Your task to perform on an android device: Go to internet settings Image 0: 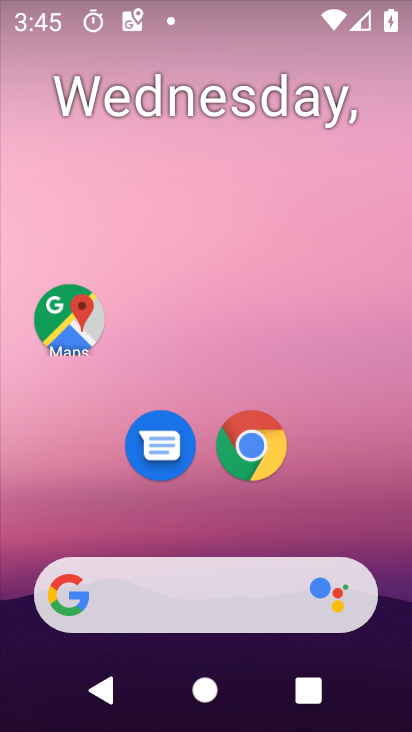
Step 0: drag from (224, 499) to (219, 65)
Your task to perform on an android device: Go to internet settings Image 1: 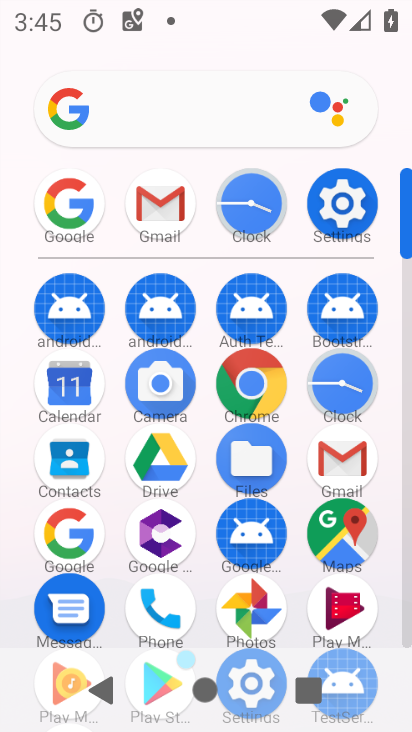
Step 1: click (340, 196)
Your task to perform on an android device: Go to internet settings Image 2: 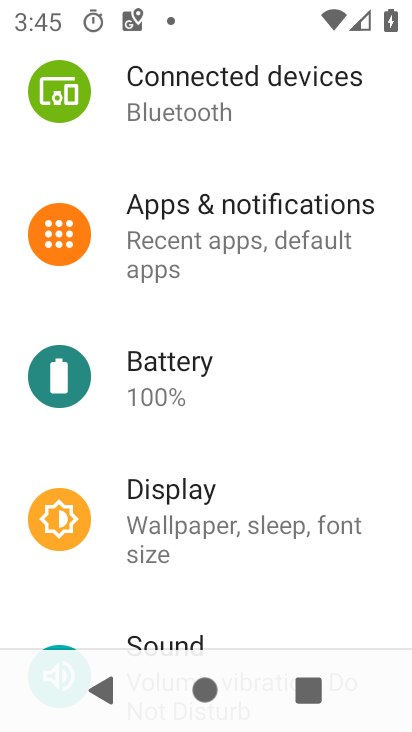
Step 2: drag from (198, 169) to (260, 683)
Your task to perform on an android device: Go to internet settings Image 3: 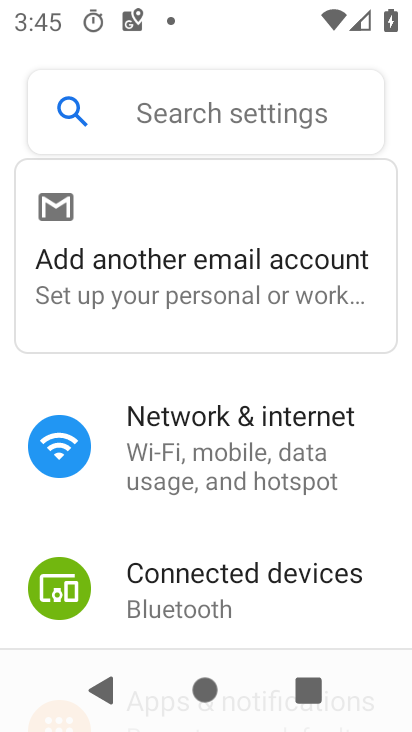
Step 3: click (206, 465)
Your task to perform on an android device: Go to internet settings Image 4: 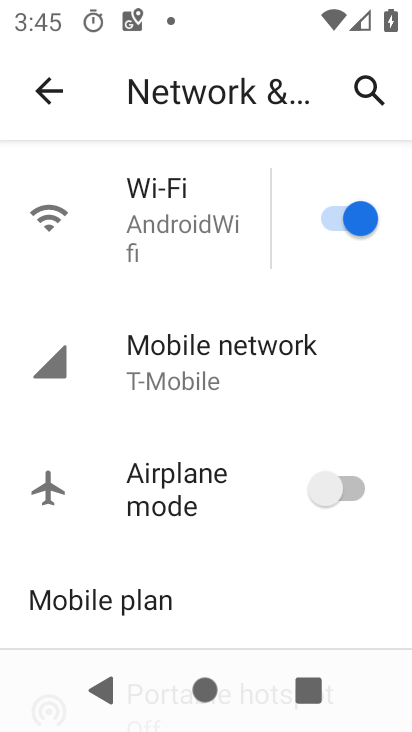
Step 4: click (162, 209)
Your task to perform on an android device: Go to internet settings Image 5: 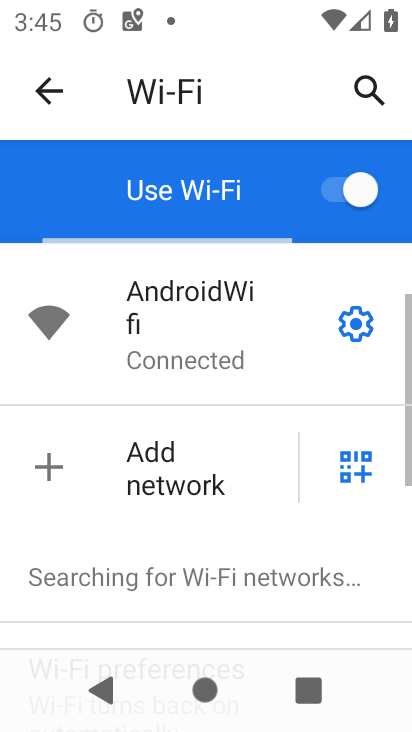
Step 5: click (342, 319)
Your task to perform on an android device: Go to internet settings Image 6: 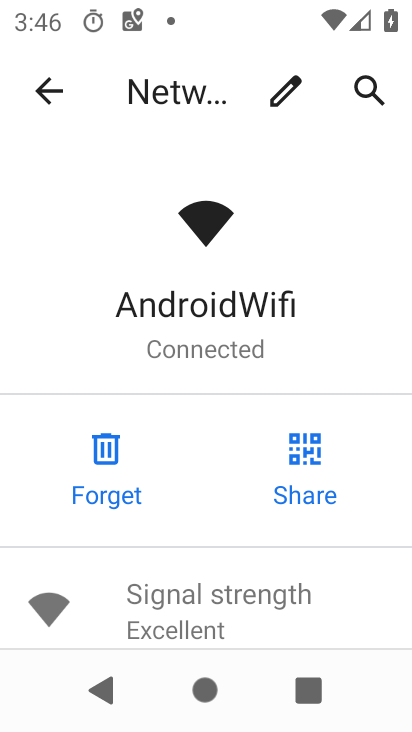
Step 6: task complete